Your task to perform on an android device: Search for seafood restaurants on Google Maps Image 0: 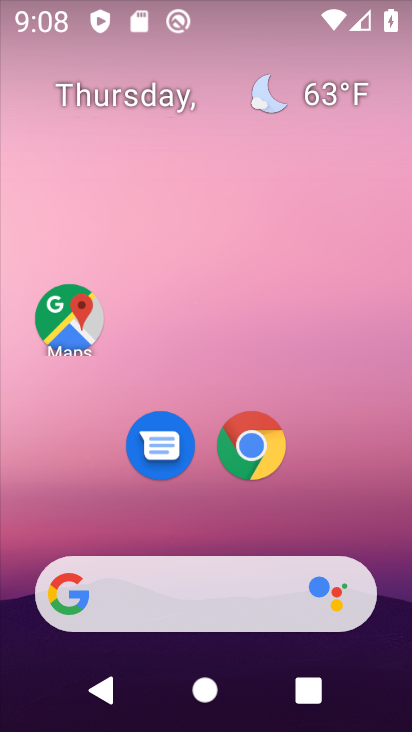
Step 0: drag from (214, 529) to (214, 256)
Your task to perform on an android device: Search for seafood restaurants on Google Maps Image 1: 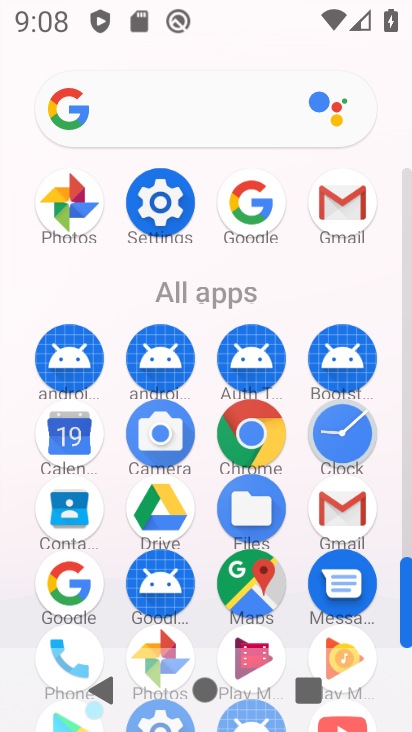
Step 1: drag from (104, 291) to (113, 100)
Your task to perform on an android device: Search for seafood restaurants on Google Maps Image 2: 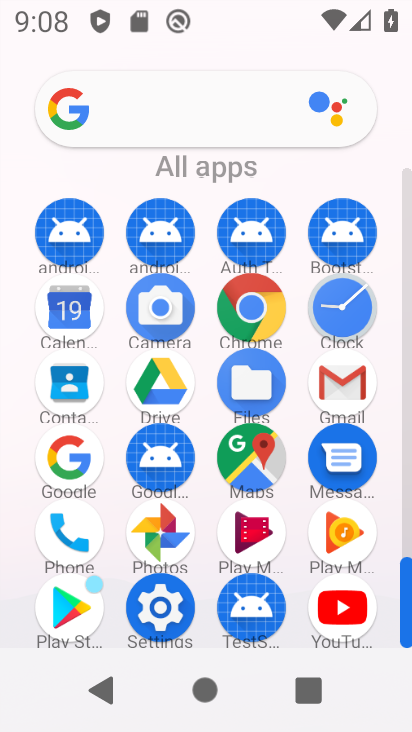
Step 2: click (233, 459)
Your task to perform on an android device: Search for seafood restaurants on Google Maps Image 3: 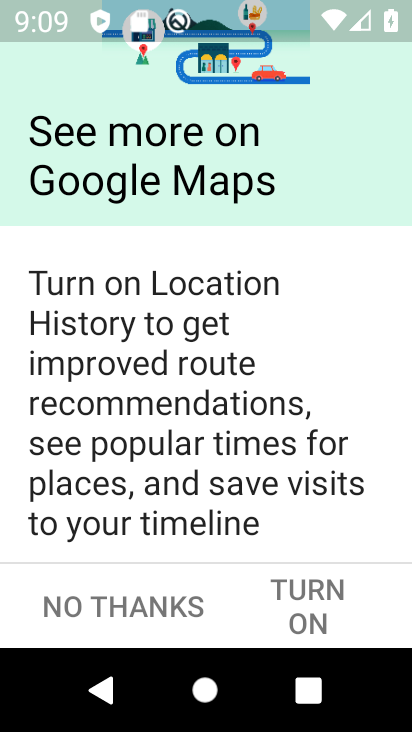
Step 3: click (104, 613)
Your task to perform on an android device: Search for seafood restaurants on Google Maps Image 4: 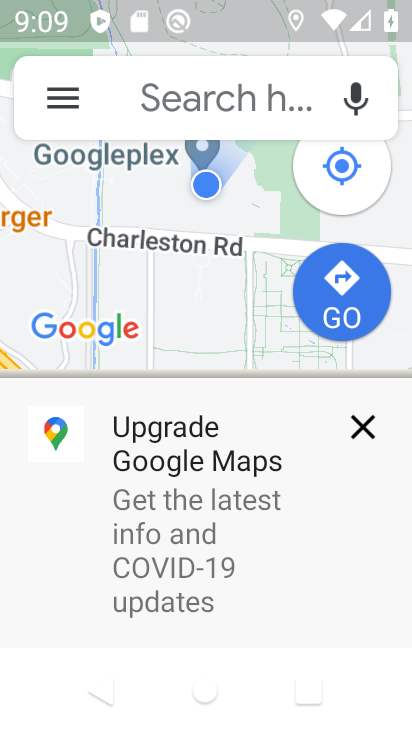
Step 4: click (149, 92)
Your task to perform on an android device: Search for seafood restaurants on Google Maps Image 5: 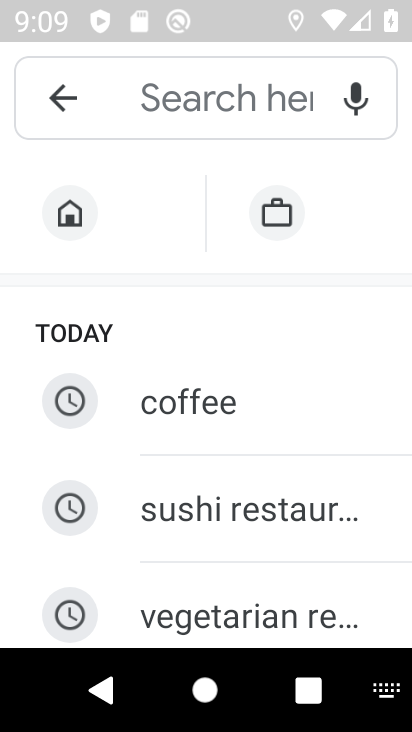
Step 5: type " seafood restaurants    "
Your task to perform on an android device: Search for seafood restaurants on Google Maps Image 6: 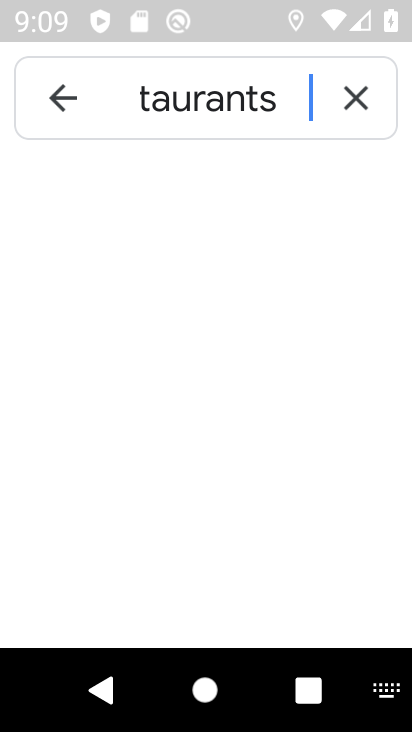
Step 6: type ""
Your task to perform on an android device: Search for seafood restaurants on Google Maps Image 7: 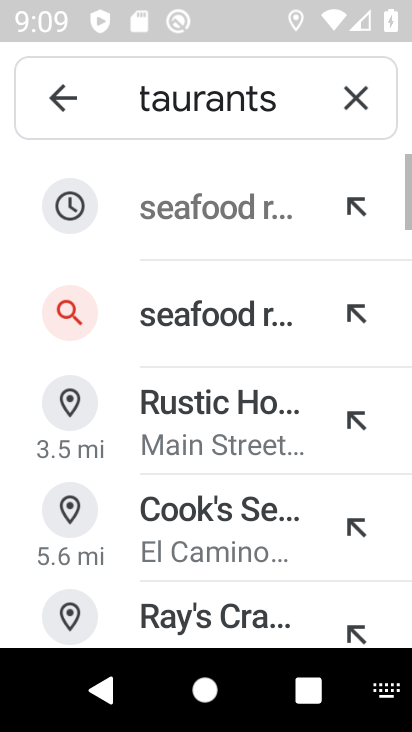
Step 7: click (191, 205)
Your task to perform on an android device: Search for seafood restaurants on Google Maps Image 8: 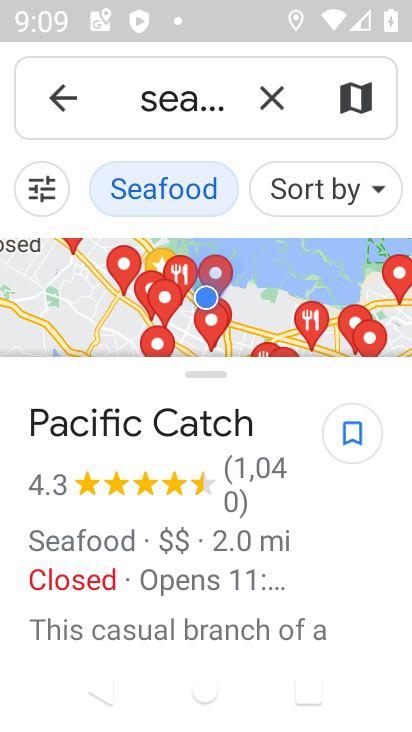
Step 8: task complete